Your task to perform on an android device: open app "Spotify: Music and Podcasts" Image 0: 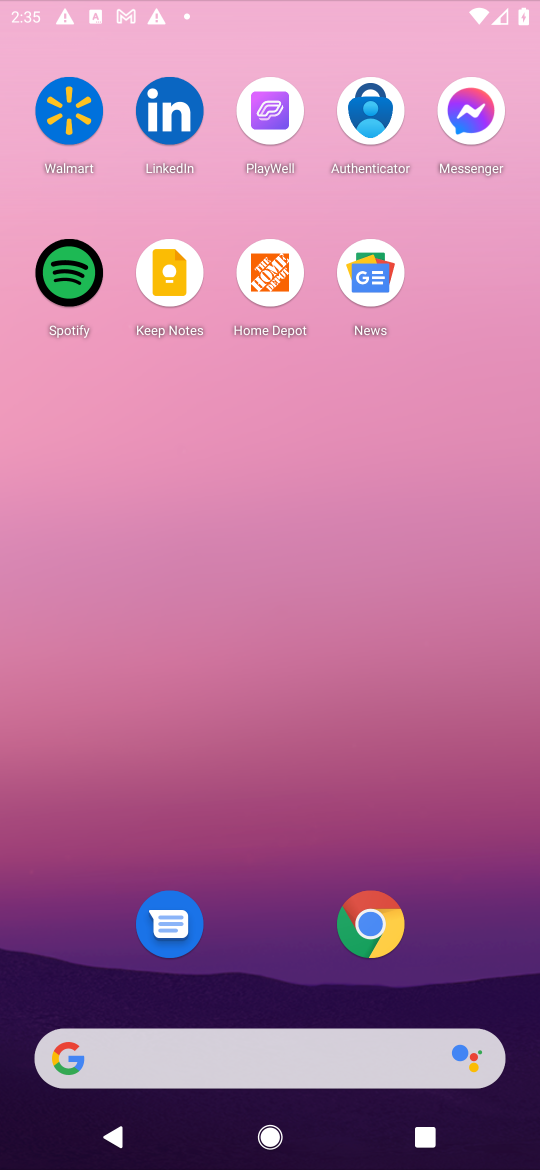
Step 0: press home button
Your task to perform on an android device: open app "Spotify: Music and Podcasts" Image 1: 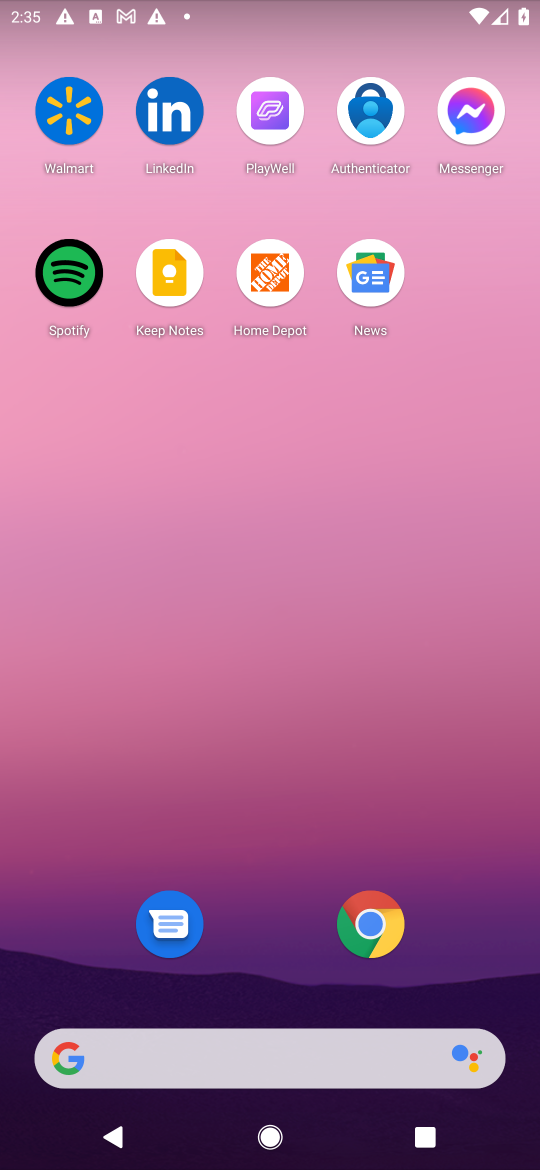
Step 1: drag from (474, 756) to (488, 184)
Your task to perform on an android device: open app "Spotify: Music and Podcasts" Image 2: 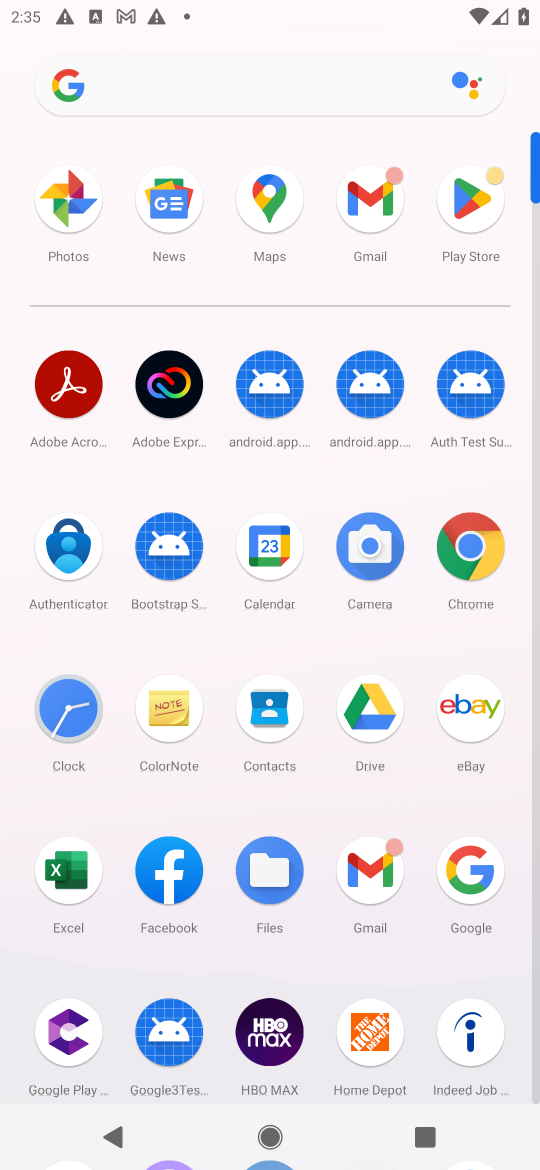
Step 2: click (460, 192)
Your task to perform on an android device: open app "Spotify: Music and Podcasts" Image 3: 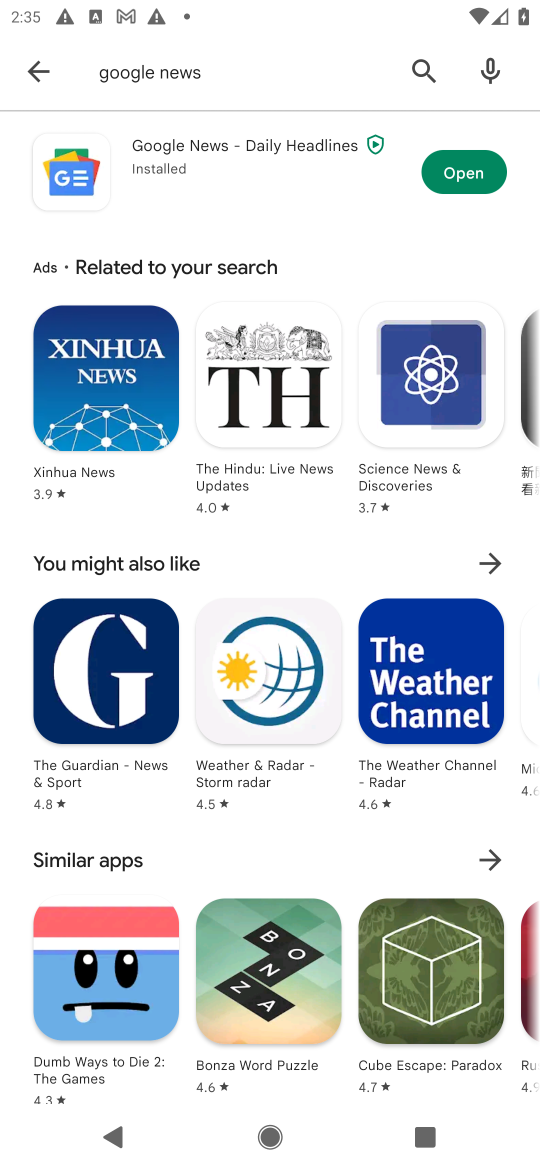
Step 3: press back button
Your task to perform on an android device: open app "Spotify: Music and Podcasts" Image 4: 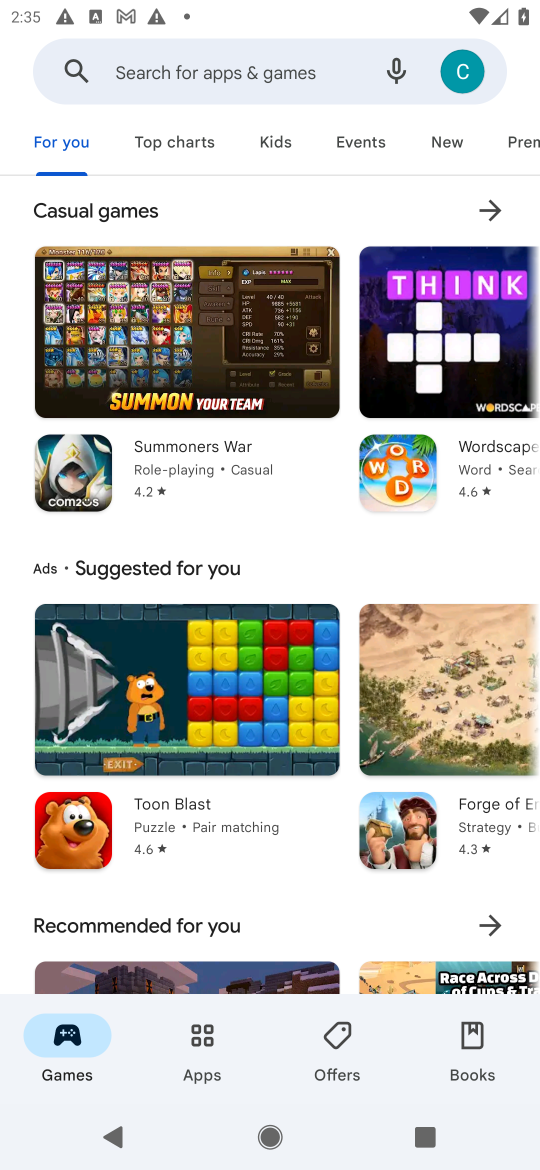
Step 4: click (216, 67)
Your task to perform on an android device: open app "Spotify: Music and Podcasts" Image 5: 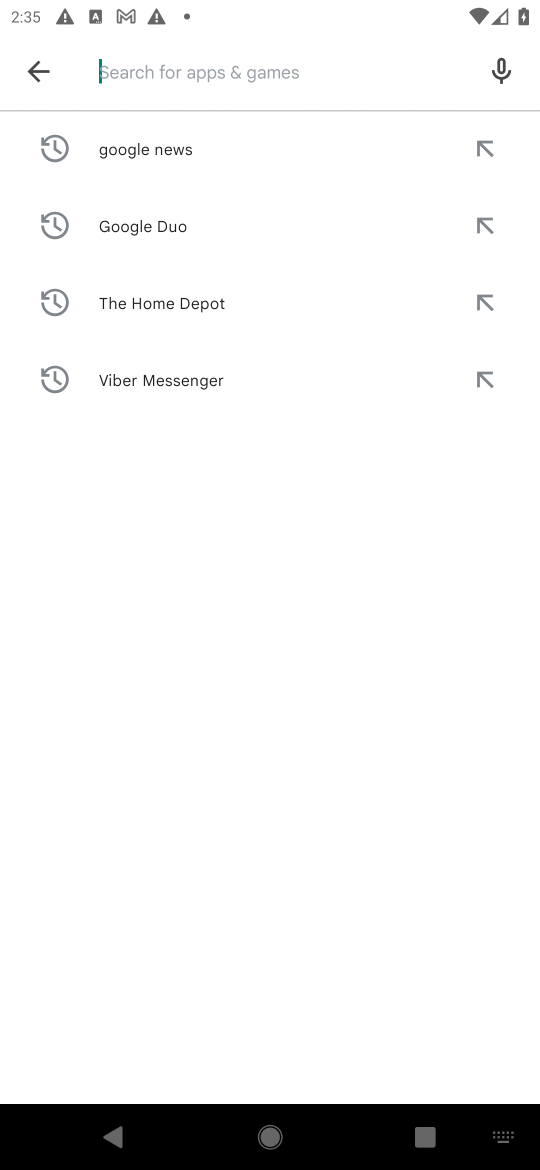
Step 5: type "Spotify: Music and Podcasts"
Your task to perform on an android device: open app "Spotify: Music and Podcasts" Image 6: 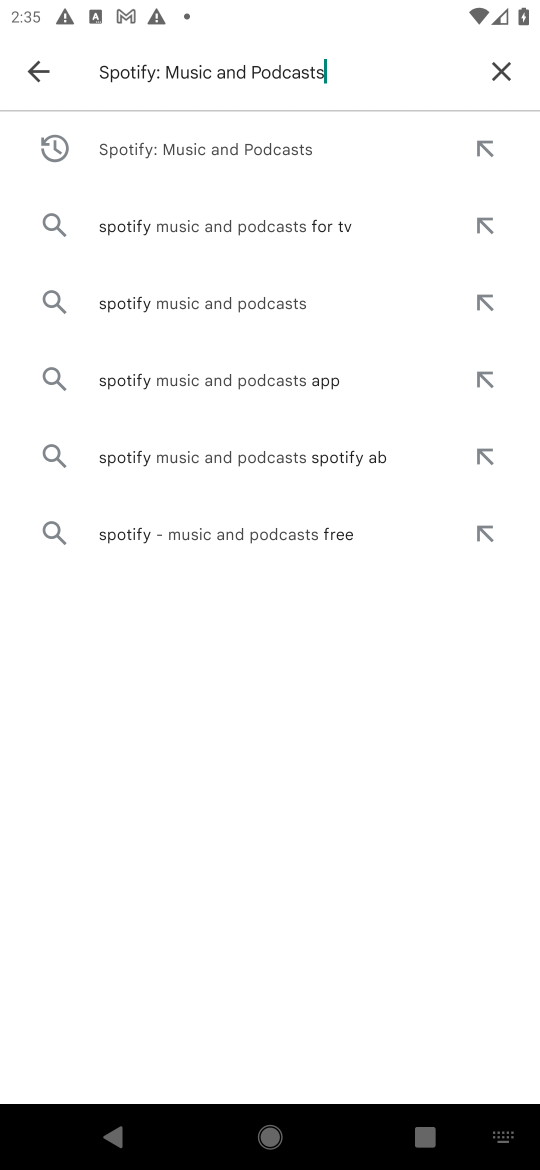
Step 6: press enter
Your task to perform on an android device: open app "Spotify: Music and Podcasts" Image 7: 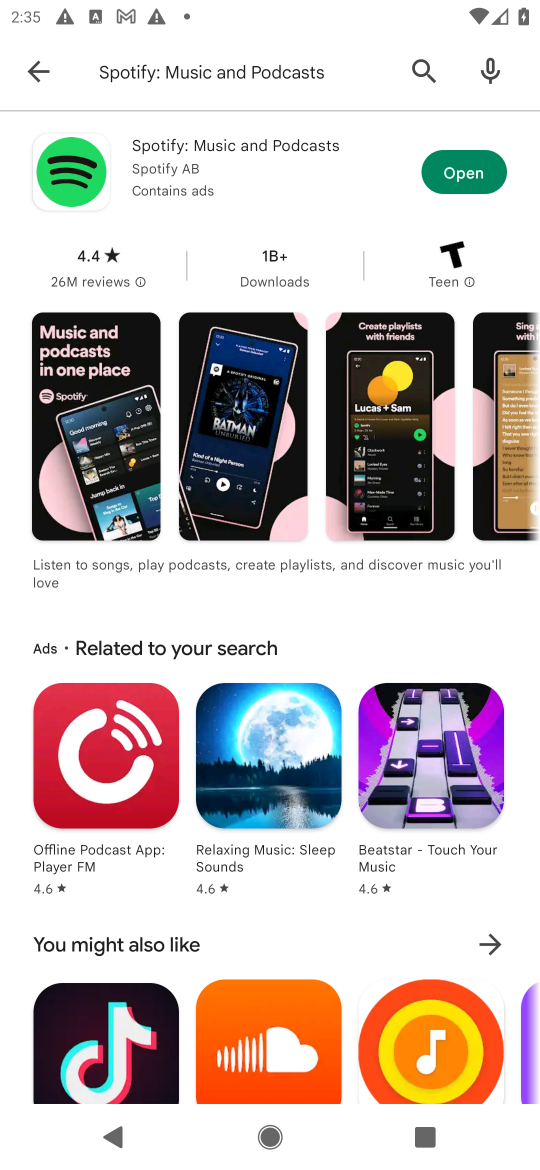
Step 7: click (452, 171)
Your task to perform on an android device: open app "Spotify: Music and Podcasts" Image 8: 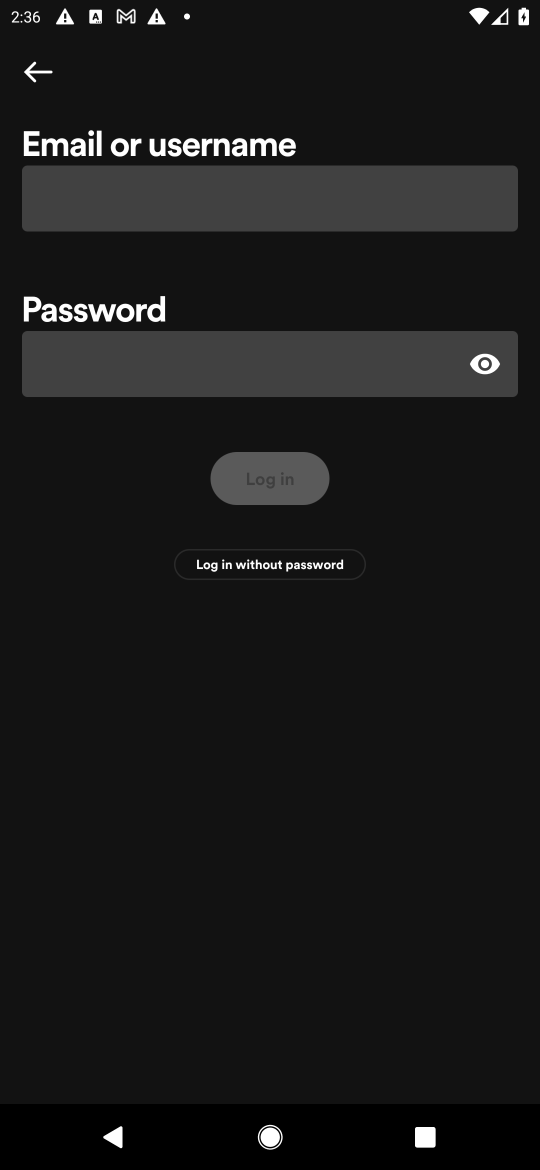
Step 8: task complete